Your task to perform on an android device: Go to Android settings Image 0: 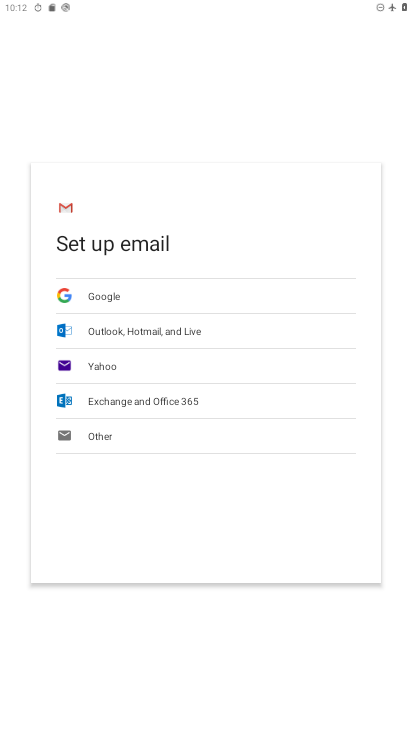
Step 0: press home button
Your task to perform on an android device: Go to Android settings Image 1: 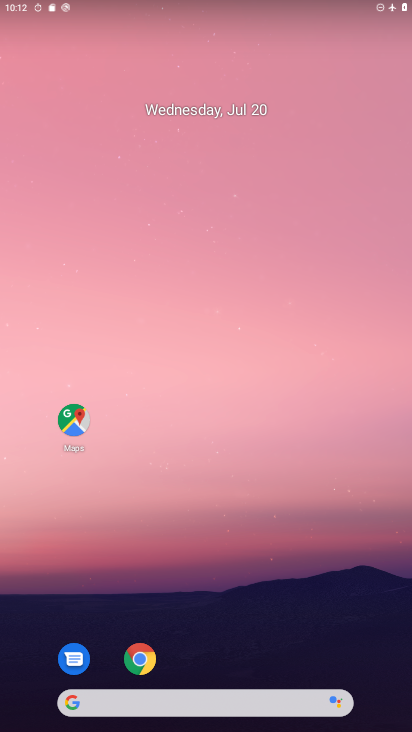
Step 1: drag from (232, 615) to (280, 83)
Your task to perform on an android device: Go to Android settings Image 2: 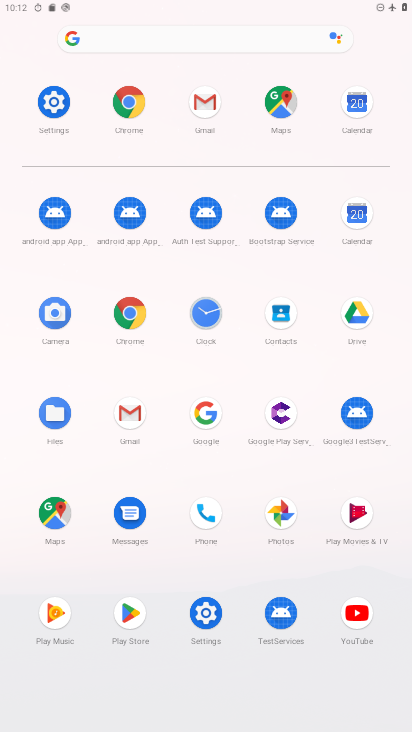
Step 2: click (61, 93)
Your task to perform on an android device: Go to Android settings Image 3: 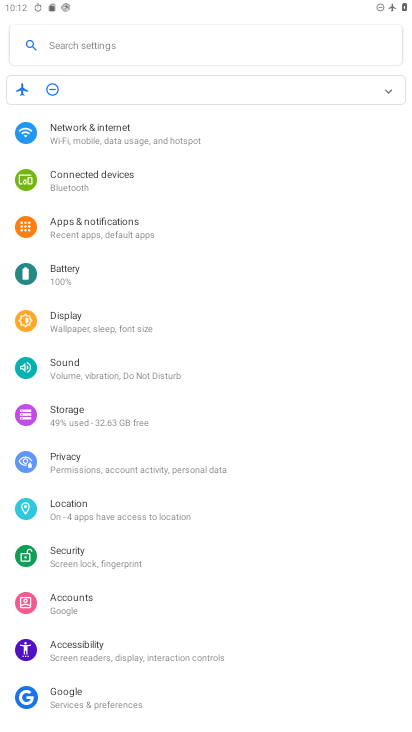
Step 3: task complete